Your task to perform on an android device: Open sound settings Image 0: 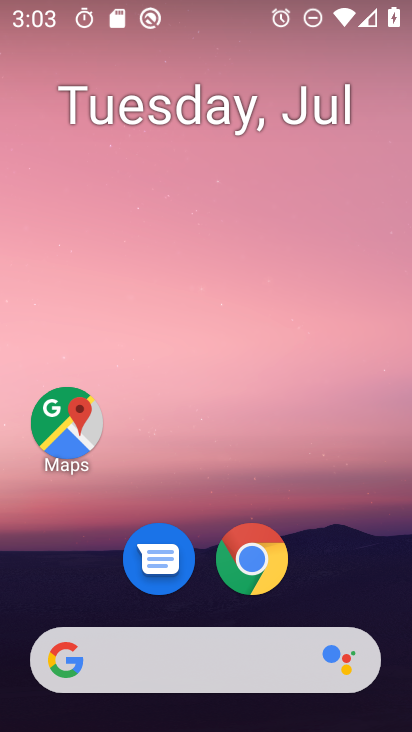
Step 0: drag from (352, 579) to (368, 199)
Your task to perform on an android device: Open sound settings Image 1: 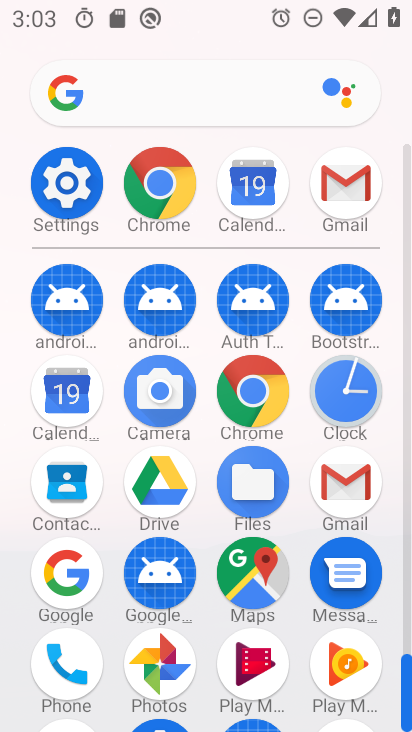
Step 1: click (75, 180)
Your task to perform on an android device: Open sound settings Image 2: 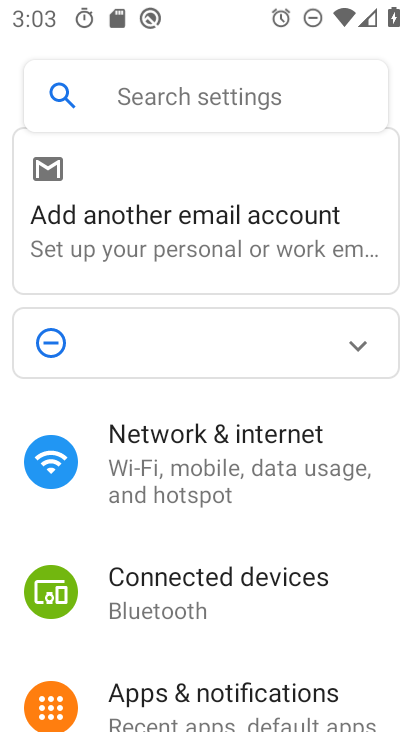
Step 2: drag from (384, 623) to (394, 521)
Your task to perform on an android device: Open sound settings Image 3: 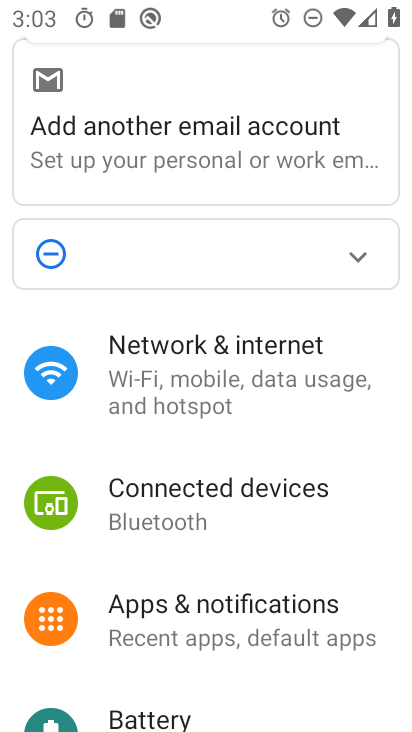
Step 3: drag from (372, 668) to (381, 515)
Your task to perform on an android device: Open sound settings Image 4: 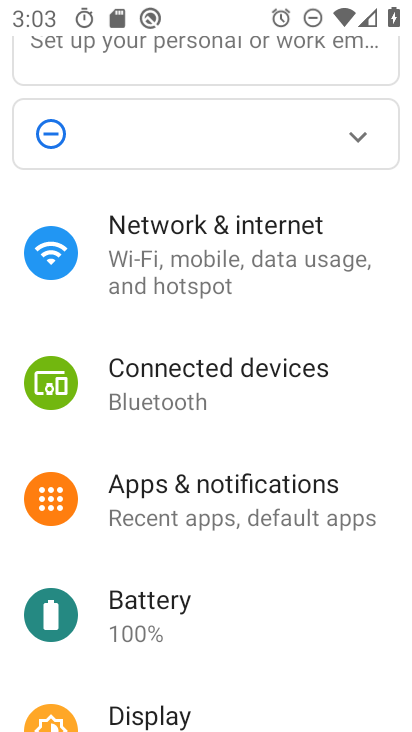
Step 4: drag from (370, 639) to (372, 505)
Your task to perform on an android device: Open sound settings Image 5: 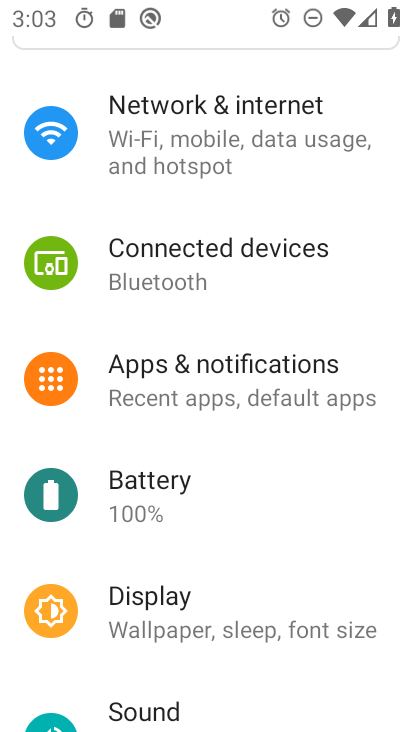
Step 5: drag from (341, 649) to (327, 454)
Your task to perform on an android device: Open sound settings Image 6: 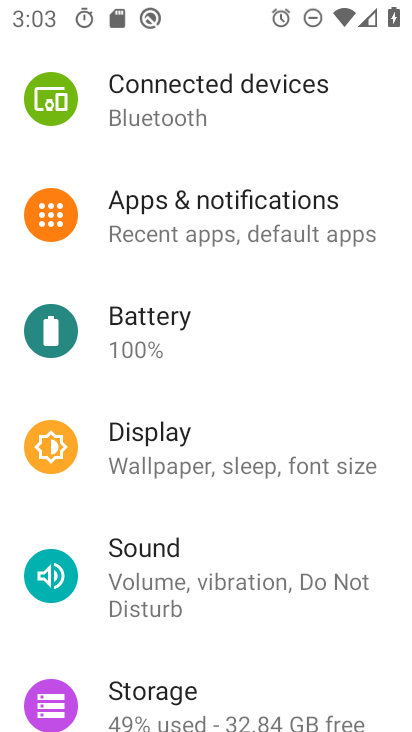
Step 6: drag from (329, 622) to (337, 515)
Your task to perform on an android device: Open sound settings Image 7: 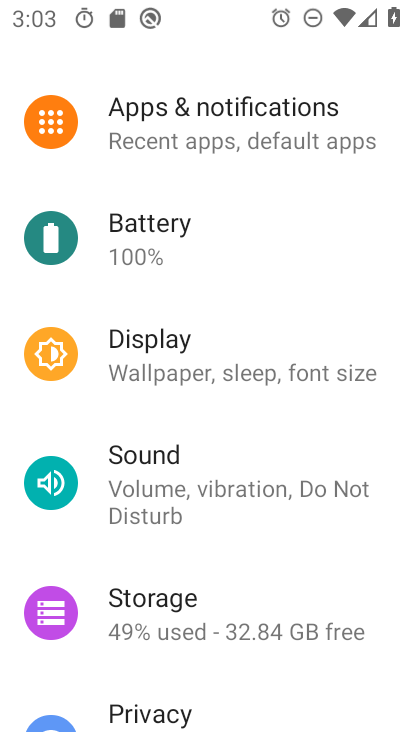
Step 7: click (336, 475)
Your task to perform on an android device: Open sound settings Image 8: 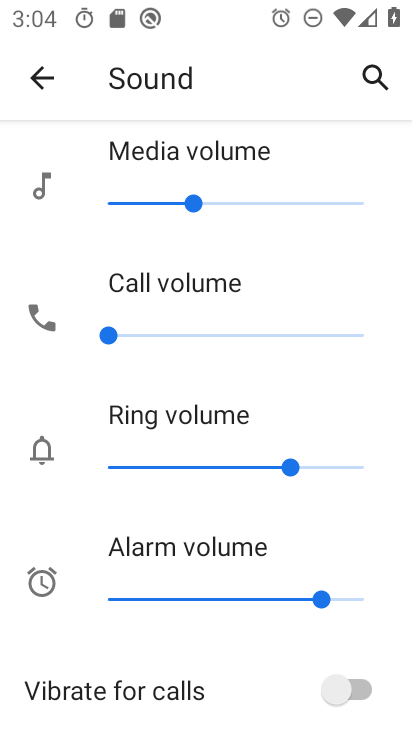
Step 8: task complete